Your task to perform on an android device: toggle location history Image 0: 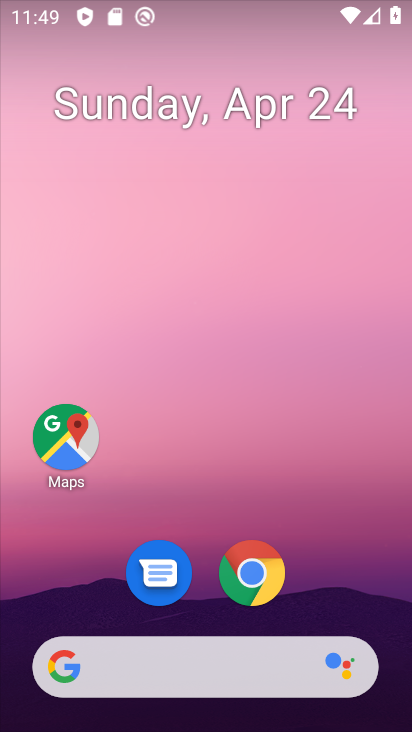
Step 0: drag from (407, 507) to (275, 1)
Your task to perform on an android device: toggle location history Image 1: 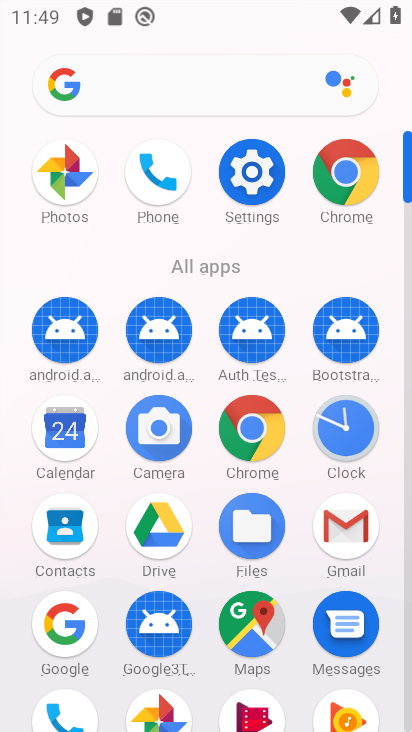
Step 1: click (259, 165)
Your task to perform on an android device: toggle location history Image 2: 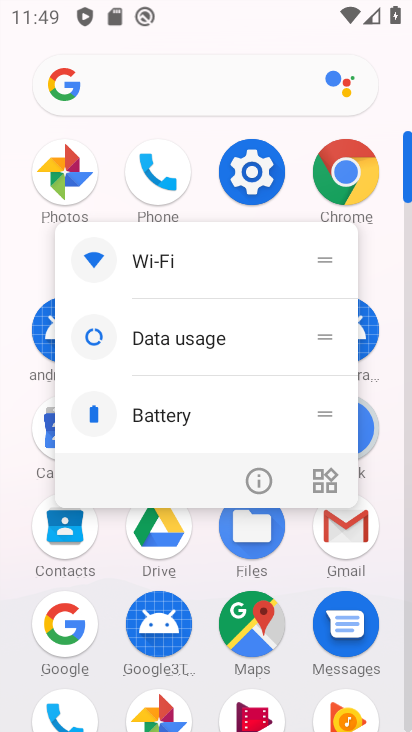
Step 2: click (253, 162)
Your task to perform on an android device: toggle location history Image 3: 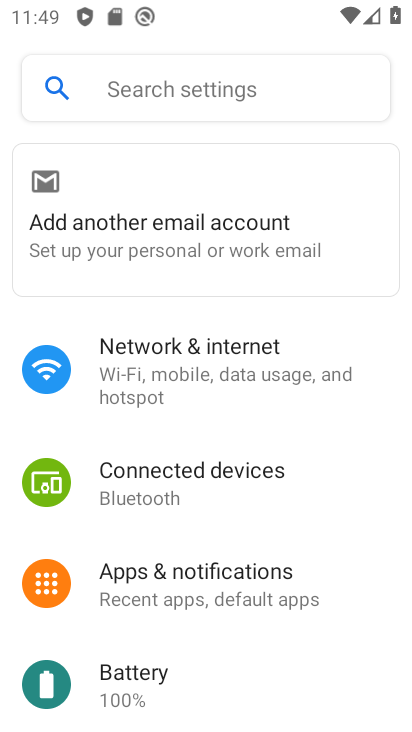
Step 3: drag from (279, 612) to (290, 353)
Your task to perform on an android device: toggle location history Image 4: 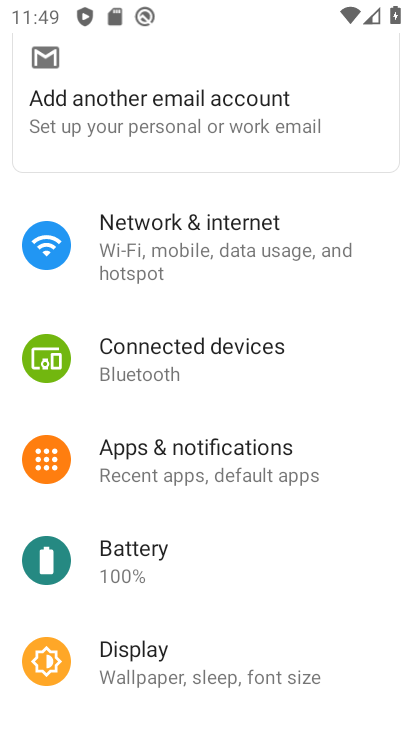
Step 4: drag from (261, 529) to (275, 250)
Your task to perform on an android device: toggle location history Image 5: 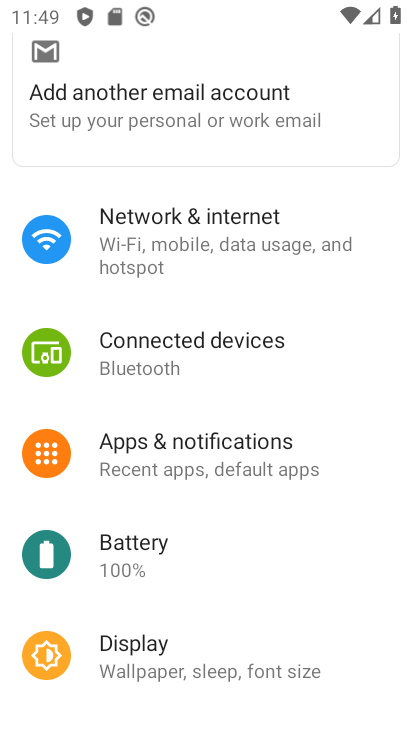
Step 5: drag from (283, 523) to (306, 224)
Your task to perform on an android device: toggle location history Image 6: 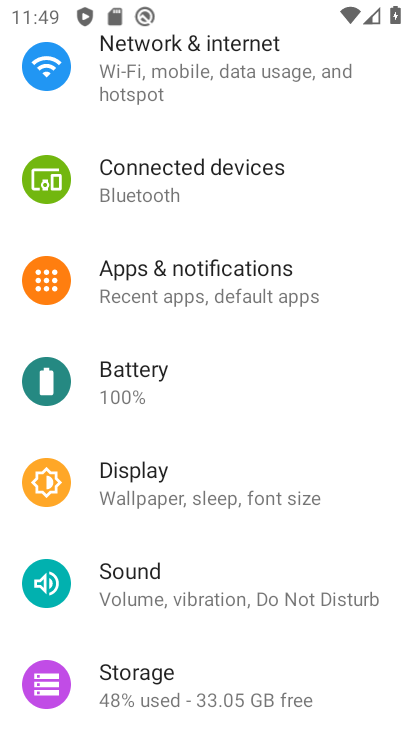
Step 6: drag from (284, 572) to (275, 247)
Your task to perform on an android device: toggle location history Image 7: 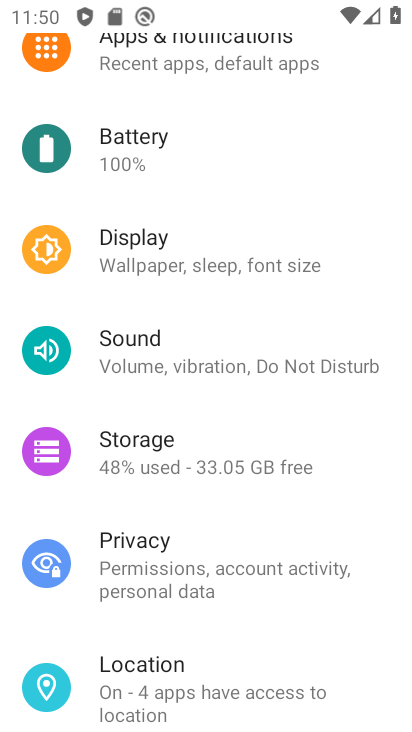
Step 7: drag from (224, 619) to (245, 183)
Your task to perform on an android device: toggle location history Image 8: 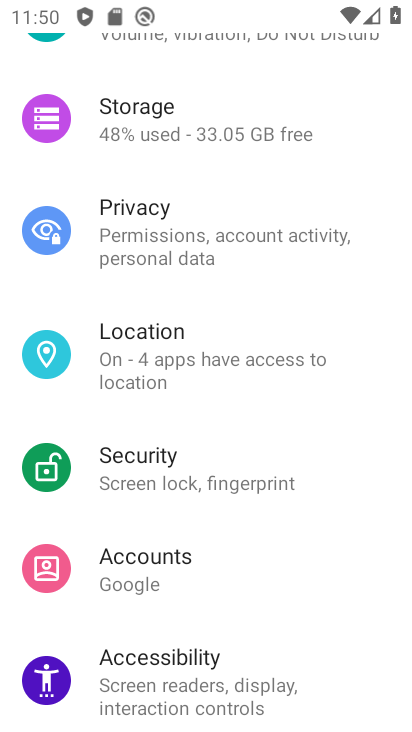
Step 8: click (221, 356)
Your task to perform on an android device: toggle location history Image 9: 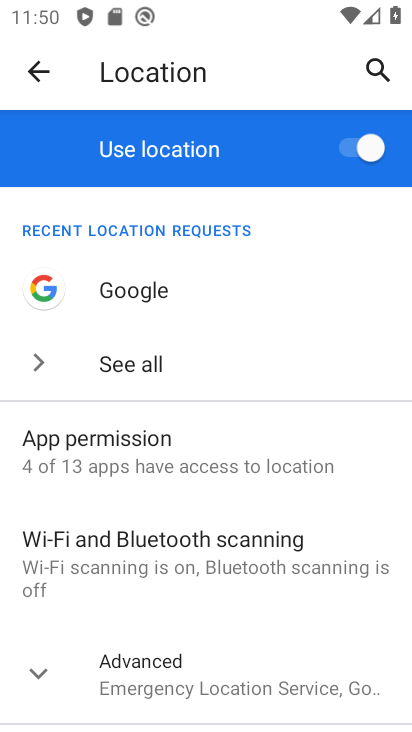
Step 9: click (363, 157)
Your task to perform on an android device: toggle location history Image 10: 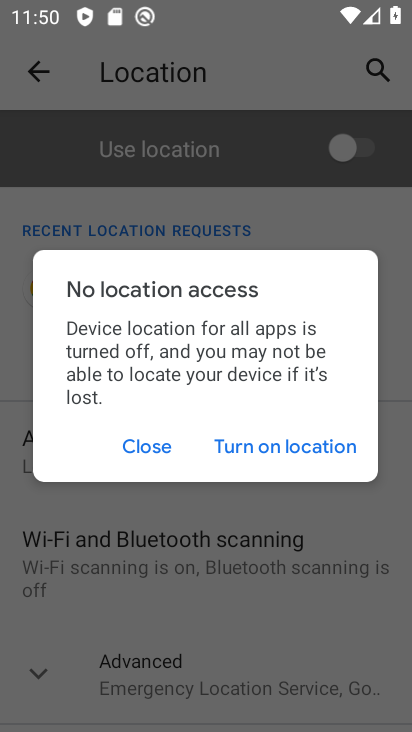
Step 10: task complete